Your task to perform on an android device: turn on data saver in the chrome app Image 0: 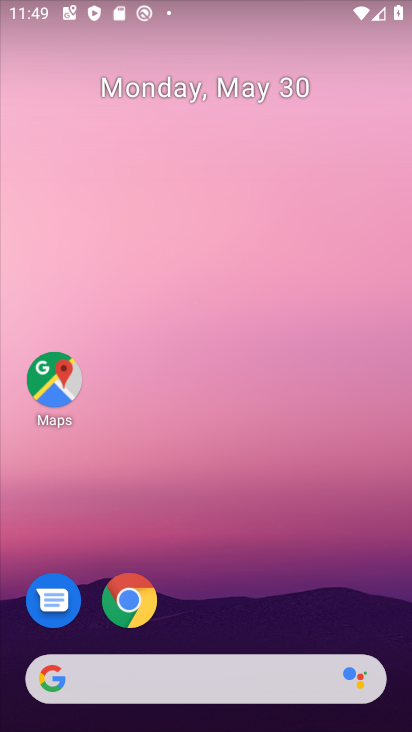
Step 0: click (122, 600)
Your task to perform on an android device: turn on data saver in the chrome app Image 1: 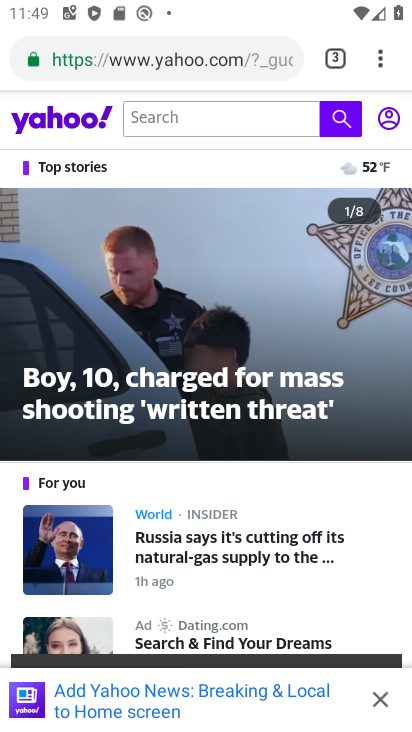
Step 1: click (379, 66)
Your task to perform on an android device: turn on data saver in the chrome app Image 2: 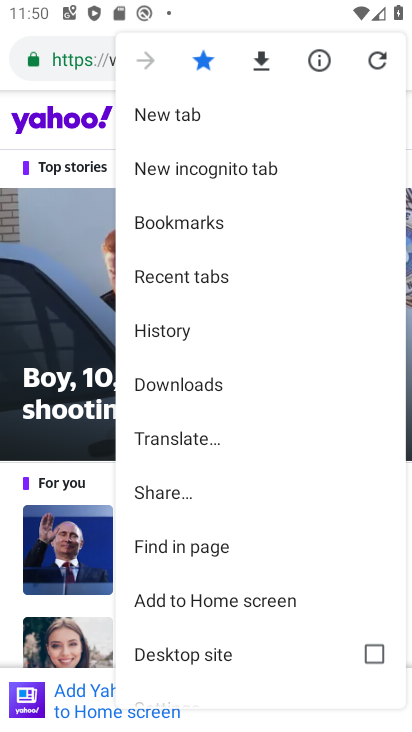
Step 2: drag from (214, 648) to (215, 179)
Your task to perform on an android device: turn on data saver in the chrome app Image 3: 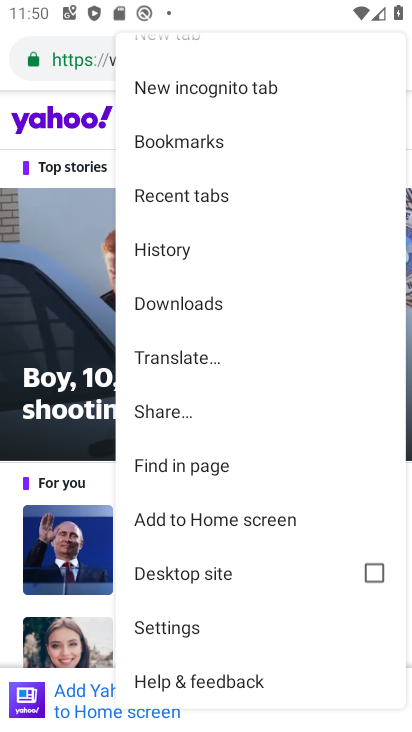
Step 3: click (176, 626)
Your task to perform on an android device: turn on data saver in the chrome app Image 4: 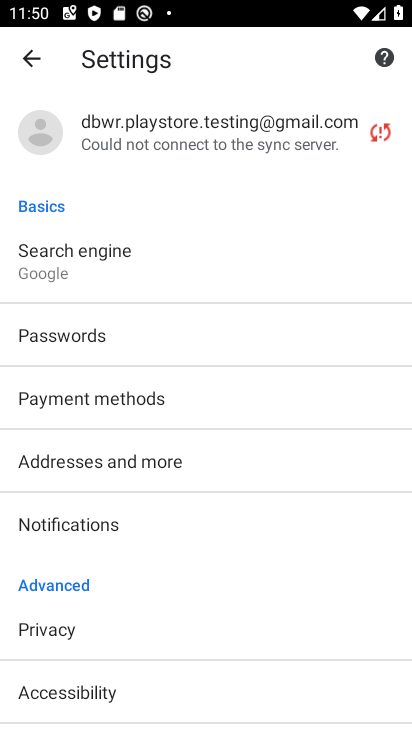
Step 4: drag from (161, 698) to (193, 227)
Your task to perform on an android device: turn on data saver in the chrome app Image 5: 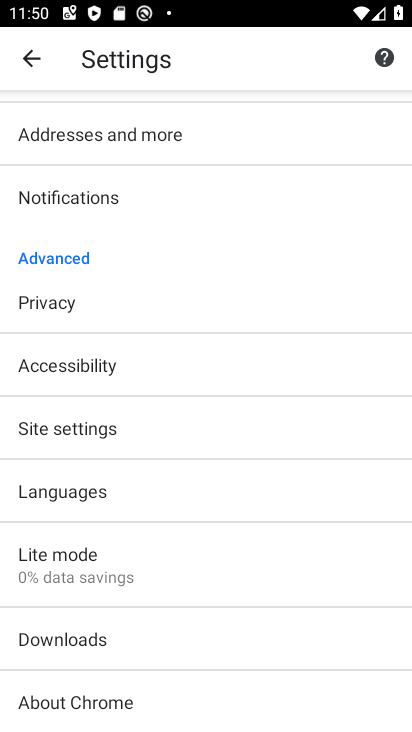
Step 5: click (68, 555)
Your task to perform on an android device: turn on data saver in the chrome app Image 6: 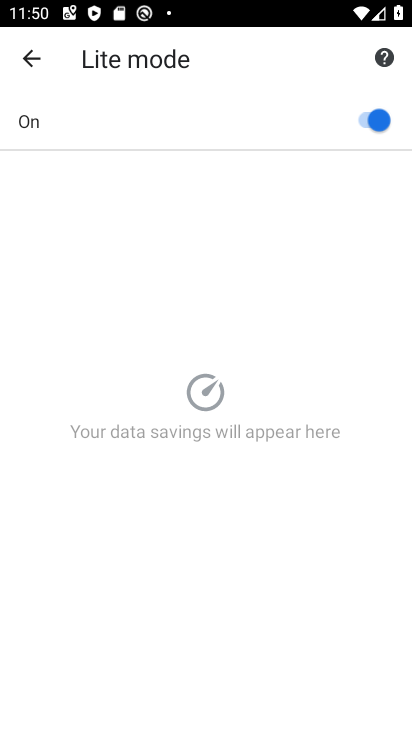
Step 6: task complete